Your task to perform on an android device: Open Amazon Image 0: 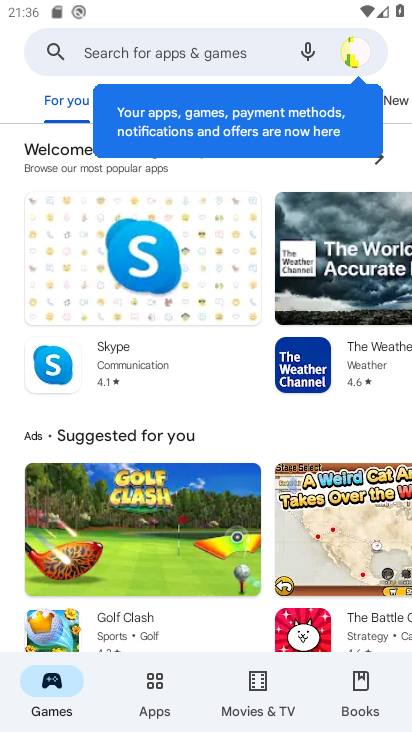
Step 0: press home button
Your task to perform on an android device: Open Amazon Image 1: 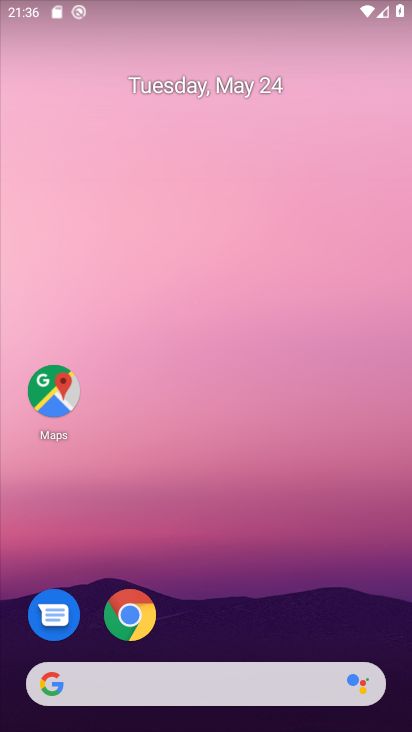
Step 1: click (202, 604)
Your task to perform on an android device: Open Amazon Image 2: 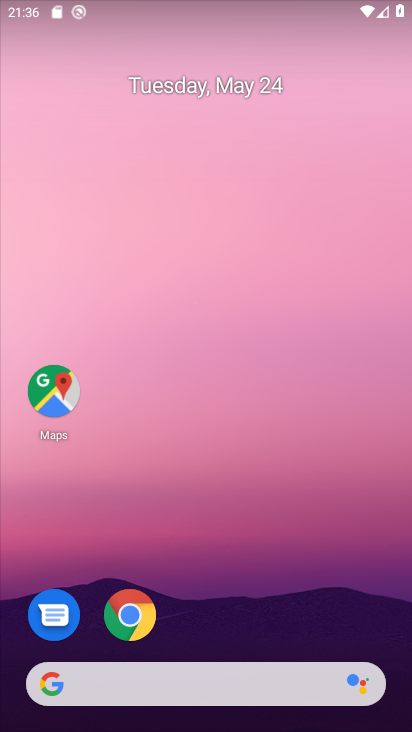
Step 2: click (151, 618)
Your task to perform on an android device: Open Amazon Image 3: 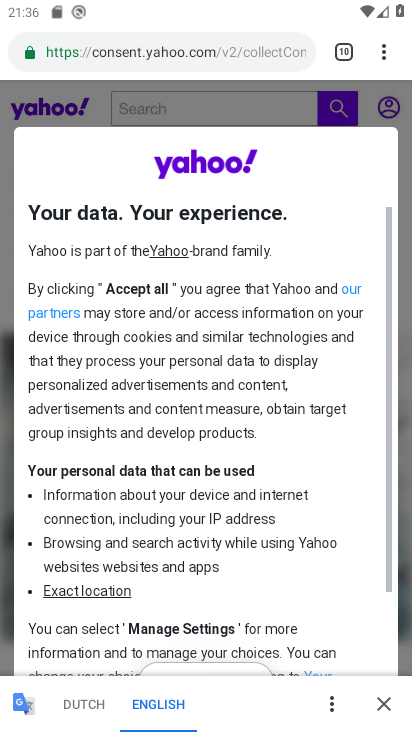
Step 3: click (385, 48)
Your task to perform on an android device: Open Amazon Image 4: 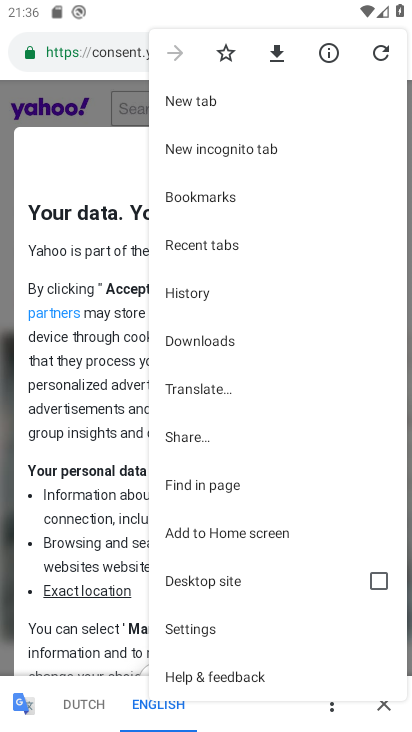
Step 4: click (218, 106)
Your task to perform on an android device: Open Amazon Image 5: 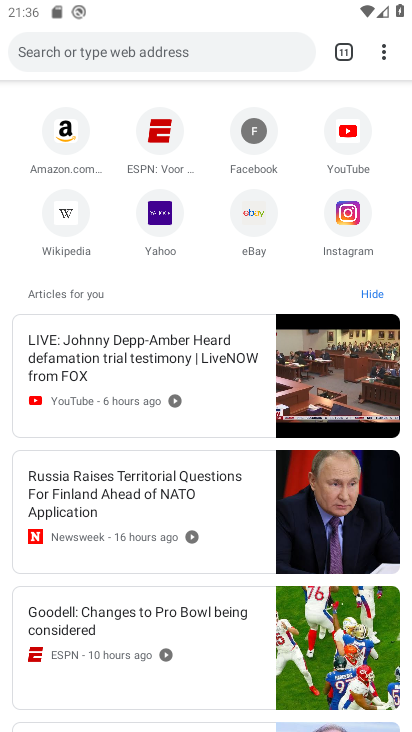
Step 5: click (70, 132)
Your task to perform on an android device: Open Amazon Image 6: 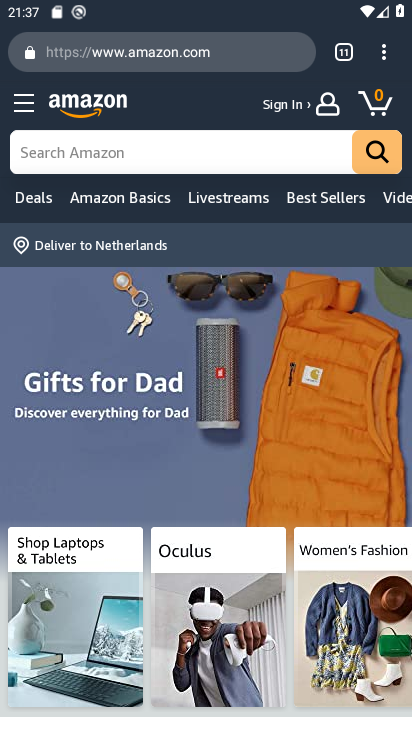
Step 6: task complete